Your task to perform on an android device: move an email to a new category in the gmail app Image 0: 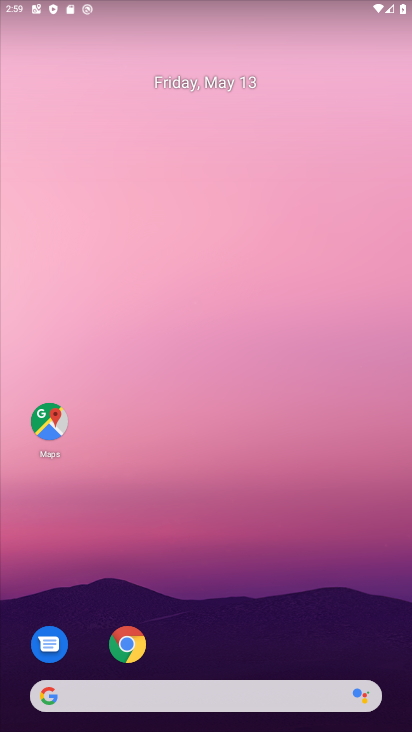
Step 0: drag from (214, 207) to (208, 37)
Your task to perform on an android device: move an email to a new category in the gmail app Image 1: 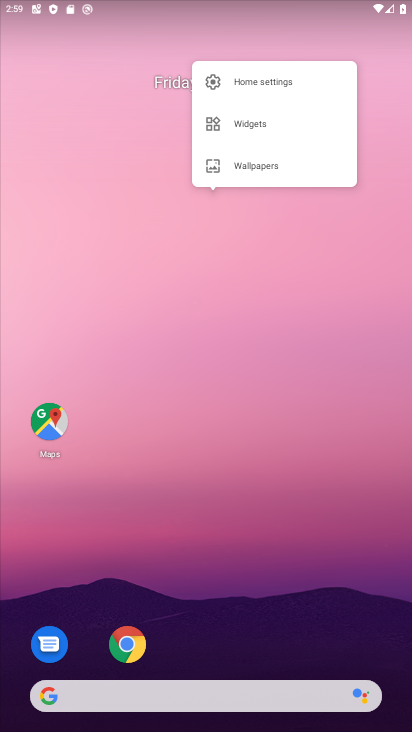
Step 1: drag from (184, 651) to (227, 26)
Your task to perform on an android device: move an email to a new category in the gmail app Image 2: 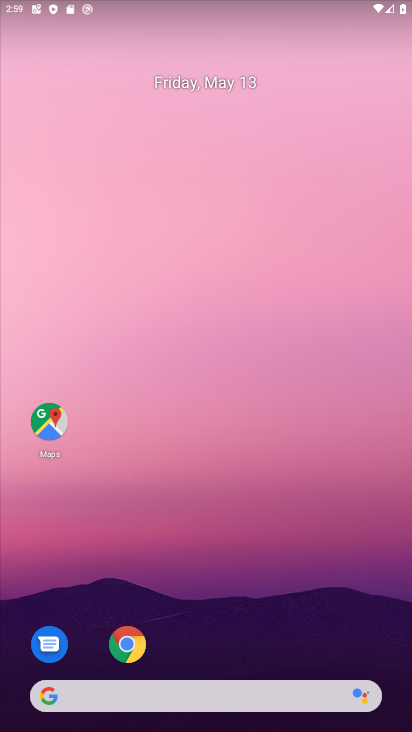
Step 2: drag from (196, 634) to (213, 139)
Your task to perform on an android device: move an email to a new category in the gmail app Image 3: 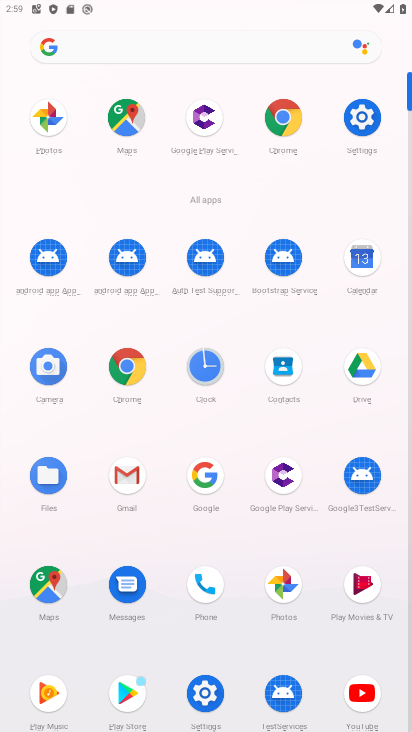
Step 3: click (130, 504)
Your task to perform on an android device: move an email to a new category in the gmail app Image 4: 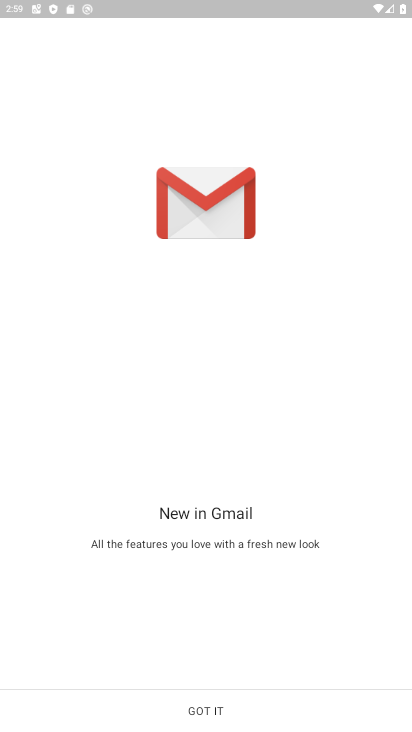
Step 4: click (221, 713)
Your task to perform on an android device: move an email to a new category in the gmail app Image 5: 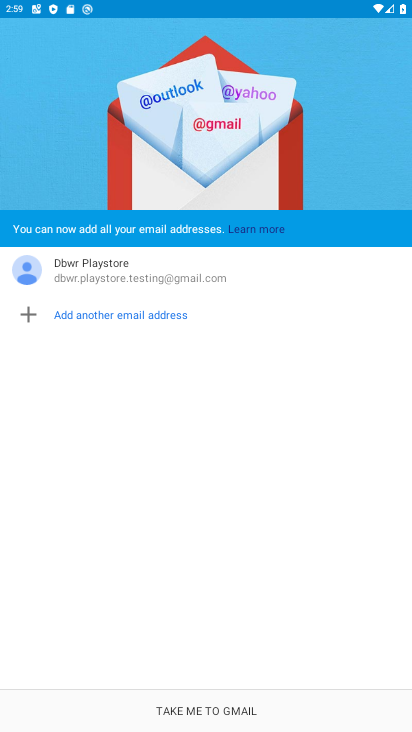
Step 5: click (221, 713)
Your task to perform on an android device: move an email to a new category in the gmail app Image 6: 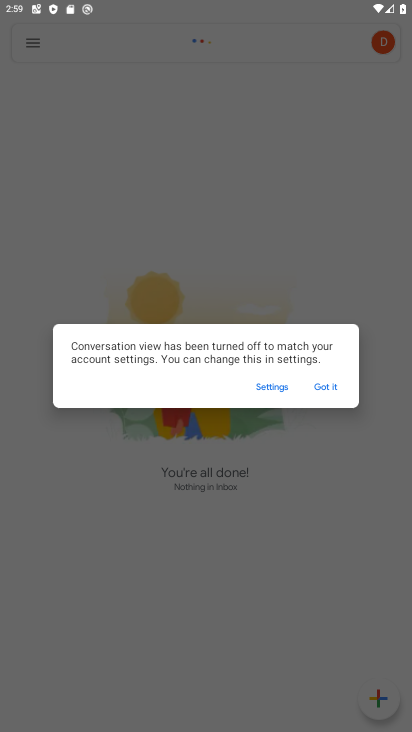
Step 6: click (327, 385)
Your task to perform on an android device: move an email to a new category in the gmail app Image 7: 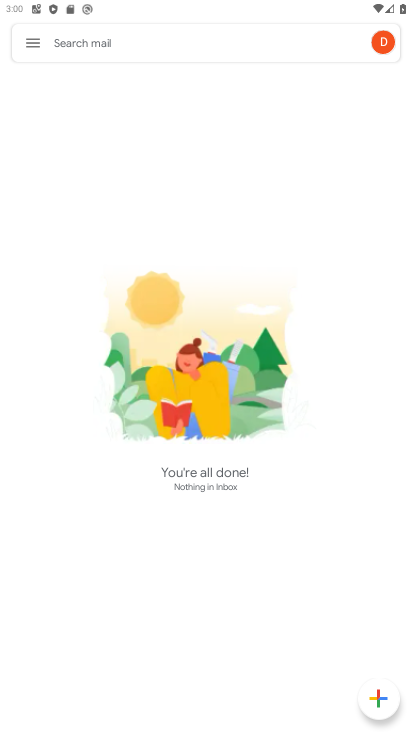
Step 7: click (30, 44)
Your task to perform on an android device: move an email to a new category in the gmail app Image 8: 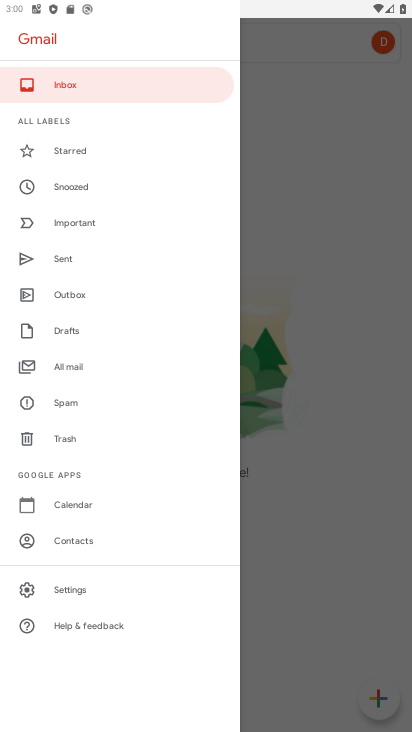
Step 8: click (81, 376)
Your task to perform on an android device: move an email to a new category in the gmail app Image 9: 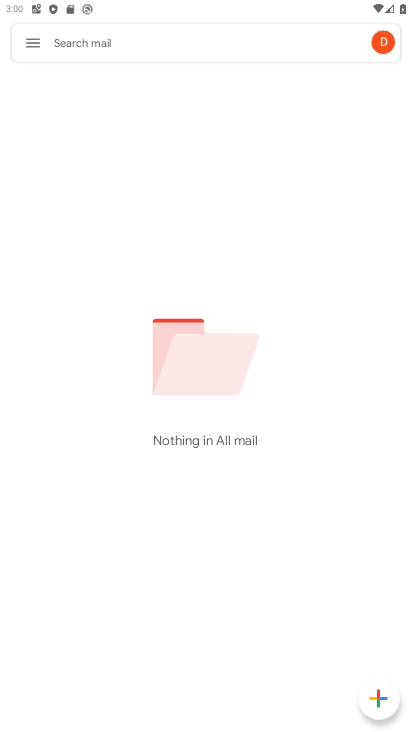
Step 9: task complete